Your task to perform on an android device: Open Maps and search for coffee Image 0: 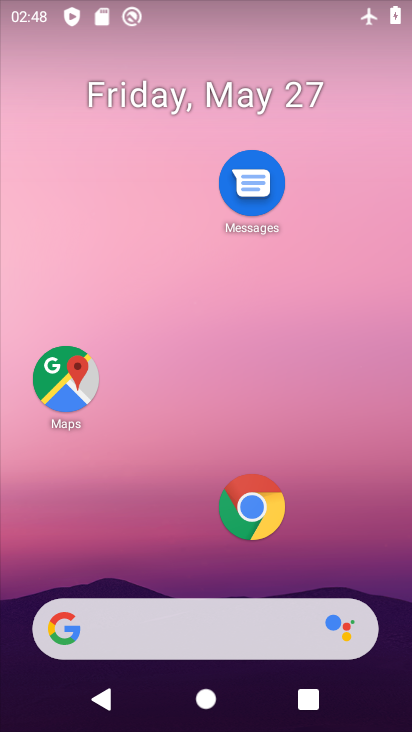
Step 0: click (226, 142)
Your task to perform on an android device: Open Maps and search for coffee Image 1: 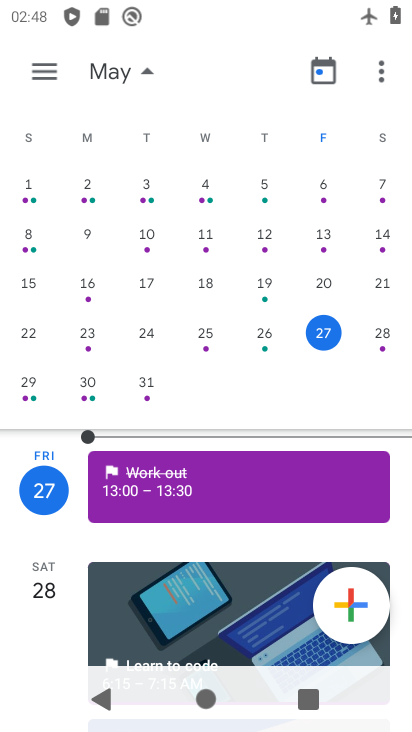
Step 1: drag from (231, 483) to (242, 128)
Your task to perform on an android device: Open Maps and search for coffee Image 2: 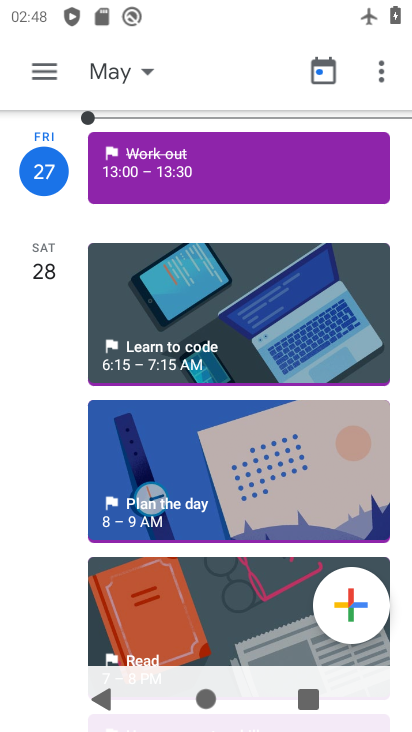
Step 2: drag from (210, 307) to (269, 729)
Your task to perform on an android device: Open Maps and search for coffee Image 3: 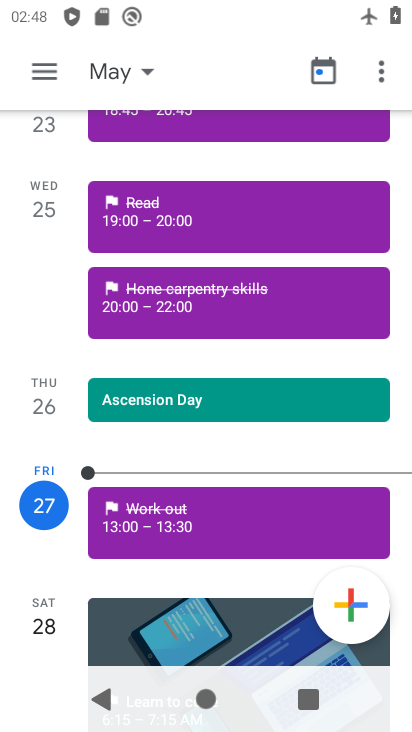
Step 3: press home button
Your task to perform on an android device: Open Maps and search for coffee Image 4: 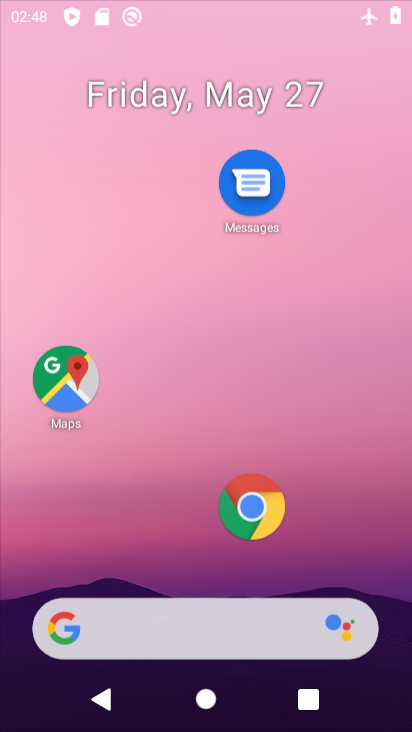
Step 4: drag from (255, 565) to (254, 206)
Your task to perform on an android device: Open Maps and search for coffee Image 5: 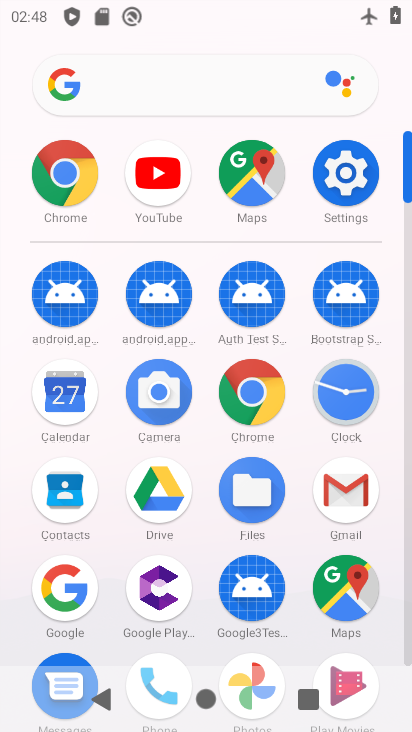
Step 5: click (333, 598)
Your task to perform on an android device: Open Maps and search for coffee Image 6: 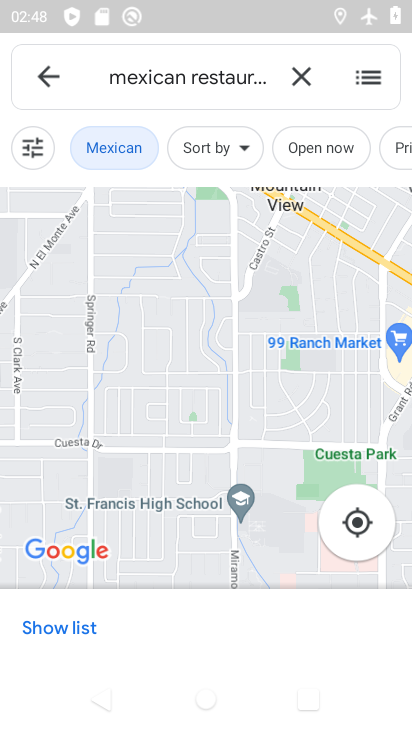
Step 6: drag from (195, 641) to (188, 525)
Your task to perform on an android device: Open Maps and search for coffee Image 7: 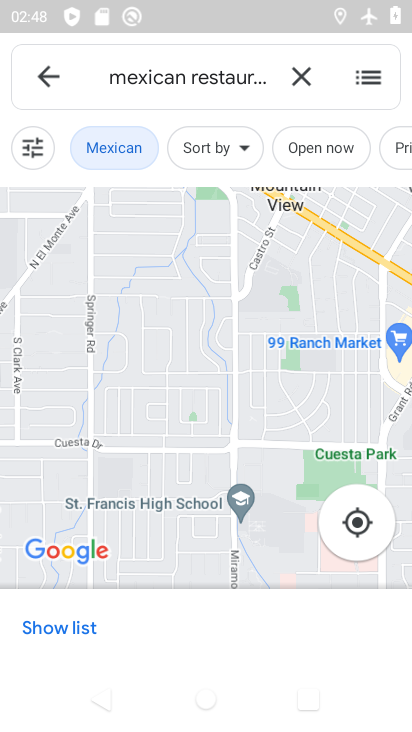
Step 7: click (303, 72)
Your task to perform on an android device: Open Maps and search for coffee Image 8: 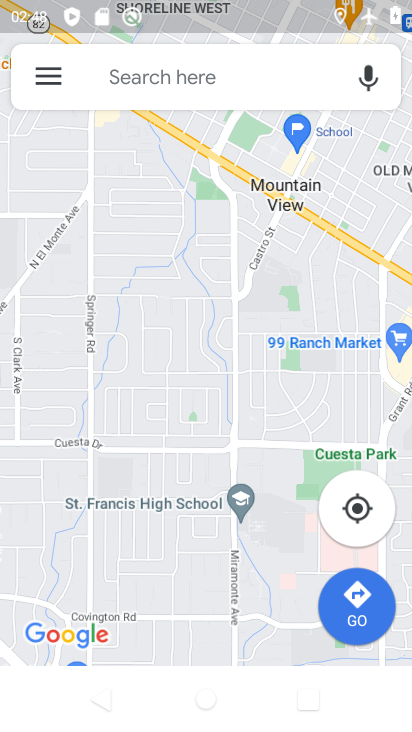
Step 8: click (148, 77)
Your task to perform on an android device: Open Maps and search for coffee Image 9: 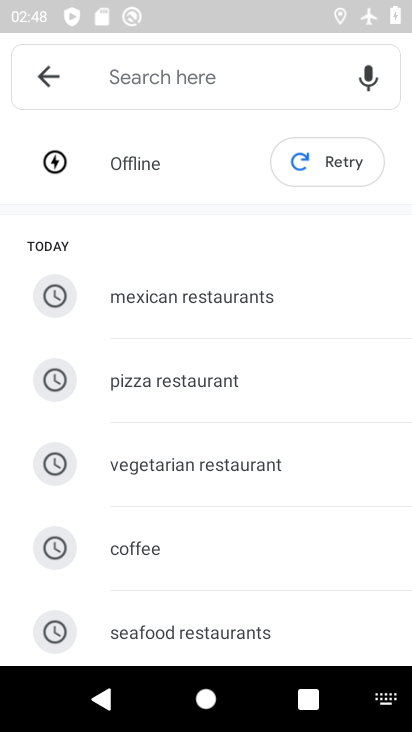
Step 9: click (169, 557)
Your task to perform on an android device: Open Maps and search for coffee Image 10: 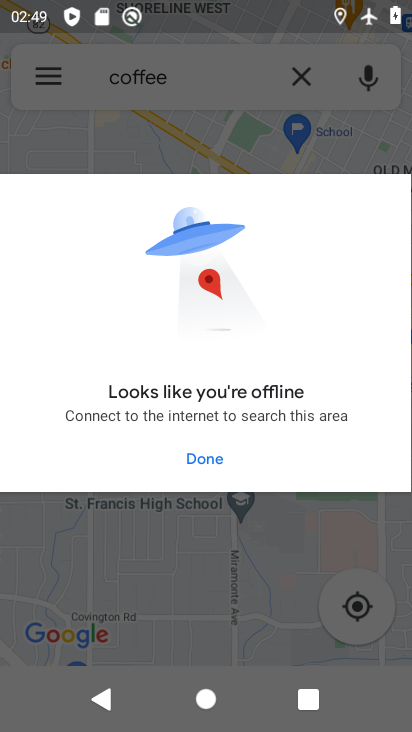
Step 10: click (186, 469)
Your task to perform on an android device: Open Maps and search for coffee Image 11: 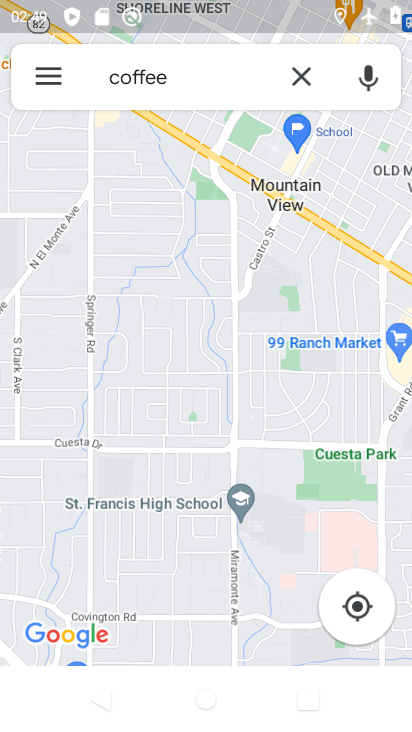
Step 11: task complete